Your task to perform on an android device: Open Yahoo.com Image 0: 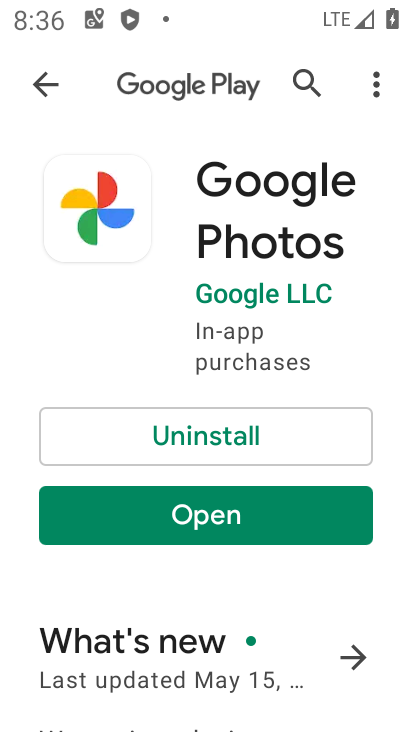
Step 0: press home button
Your task to perform on an android device: Open Yahoo.com Image 1: 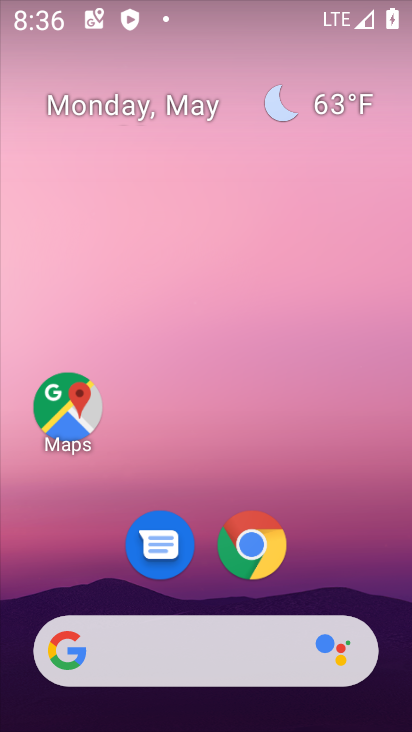
Step 1: click (243, 572)
Your task to perform on an android device: Open Yahoo.com Image 2: 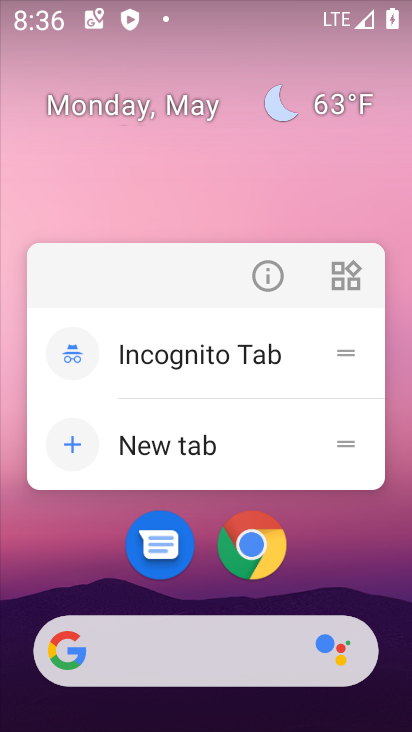
Step 2: click (248, 544)
Your task to perform on an android device: Open Yahoo.com Image 3: 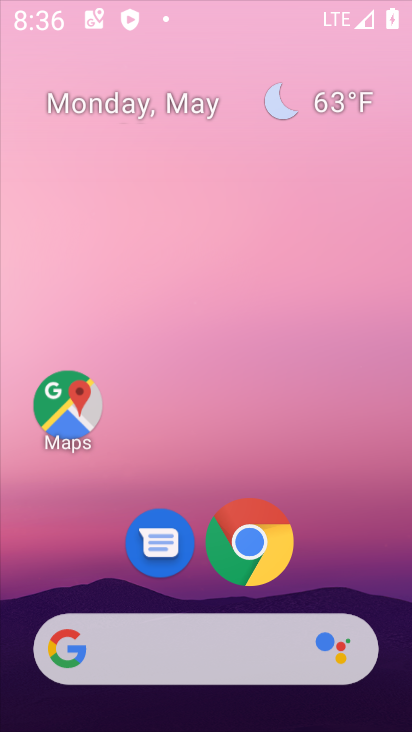
Step 3: click (268, 534)
Your task to perform on an android device: Open Yahoo.com Image 4: 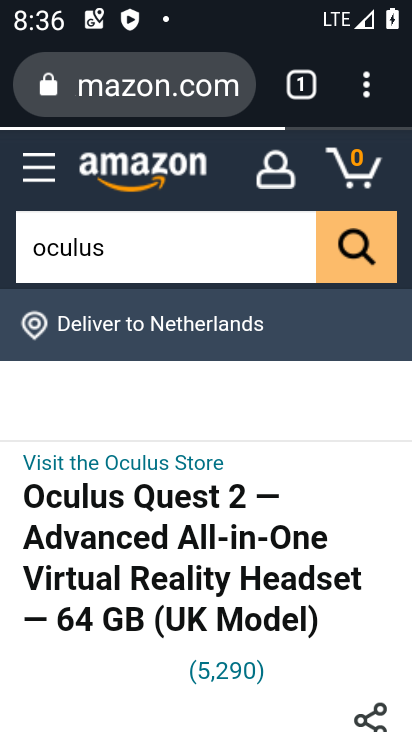
Step 4: click (182, 74)
Your task to perform on an android device: Open Yahoo.com Image 5: 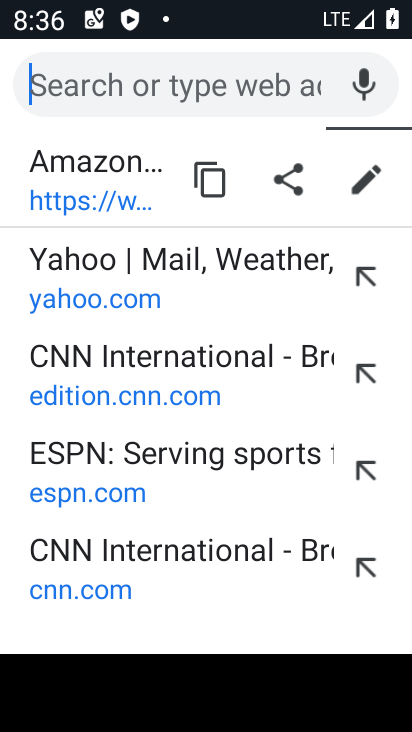
Step 5: click (188, 267)
Your task to perform on an android device: Open Yahoo.com Image 6: 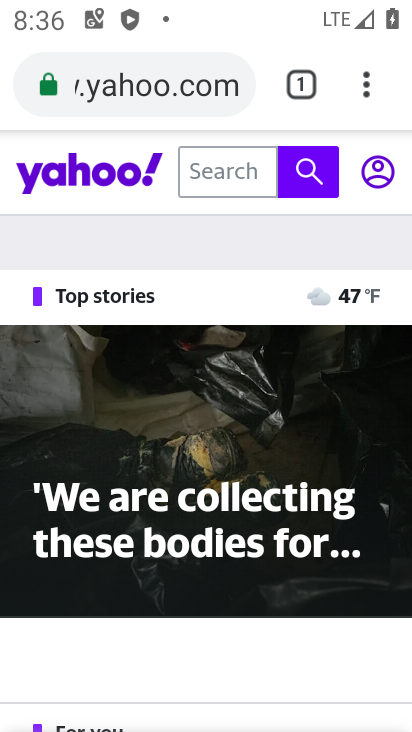
Step 6: task complete